Your task to perform on an android device: Go to display settings Image 0: 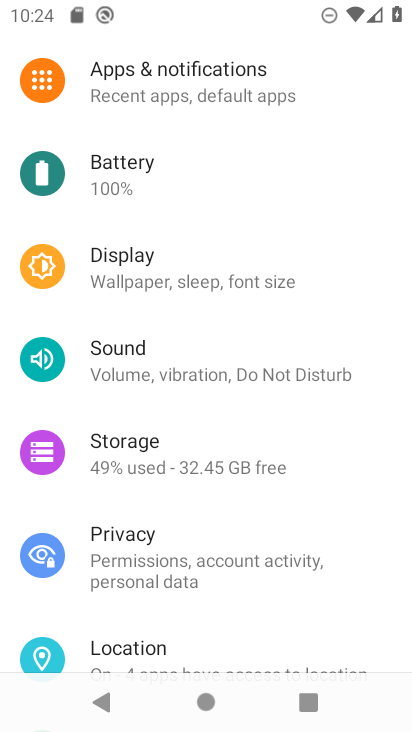
Step 0: click (241, 277)
Your task to perform on an android device: Go to display settings Image 1: 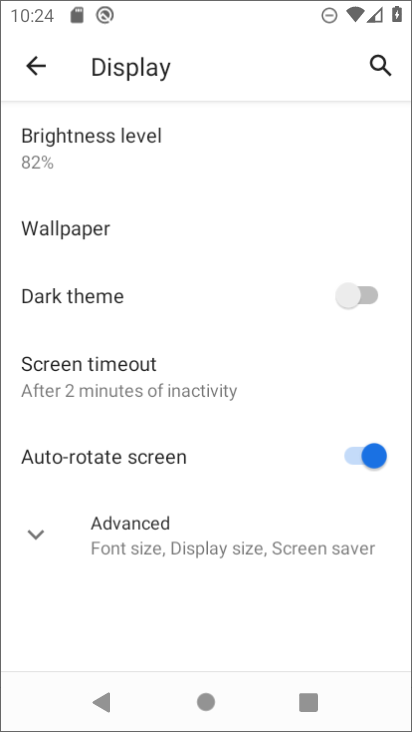
Step 1: task complete